Your task to perform on an android device: turn off translation in the chrome app Image 0: 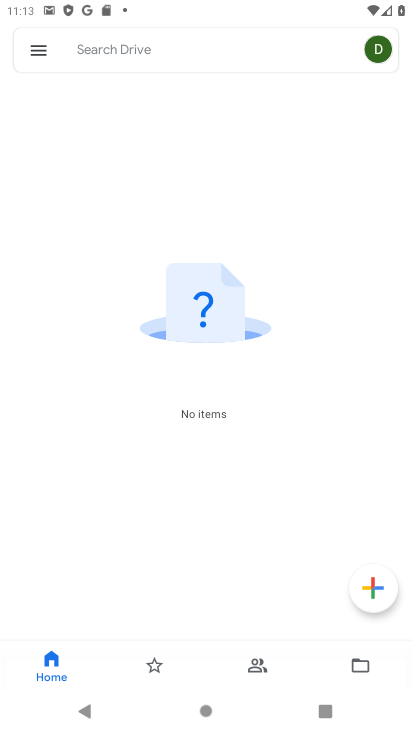
Step 0: drag from (172, 551) to (187, 204)
Your task to perform on an android device: turn off translation in the chrome app Image 1: 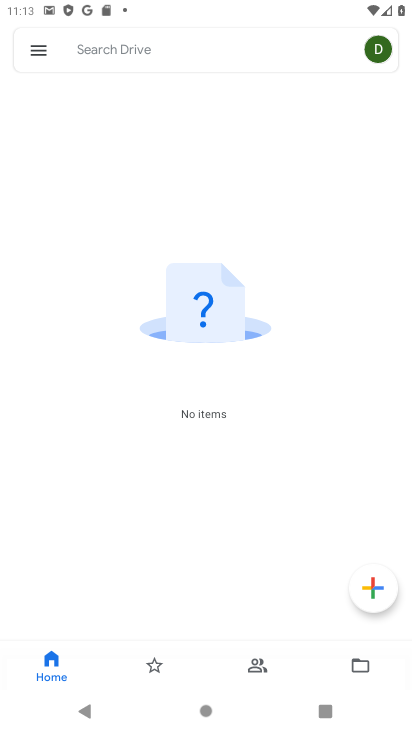
Step 1: press home button
Your task to perform on an android device: turn off translation in the chrome app Image 2: 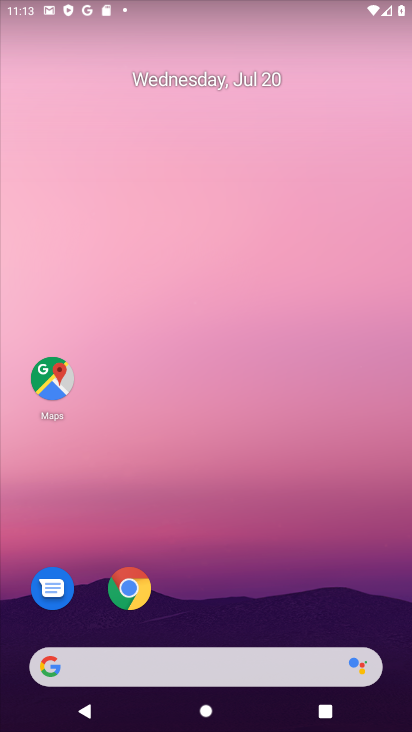
Step 2: drag from (186, 557) to (201, 135)
Your task to perform on an android device: turn off translation in the chrome app Image 3: 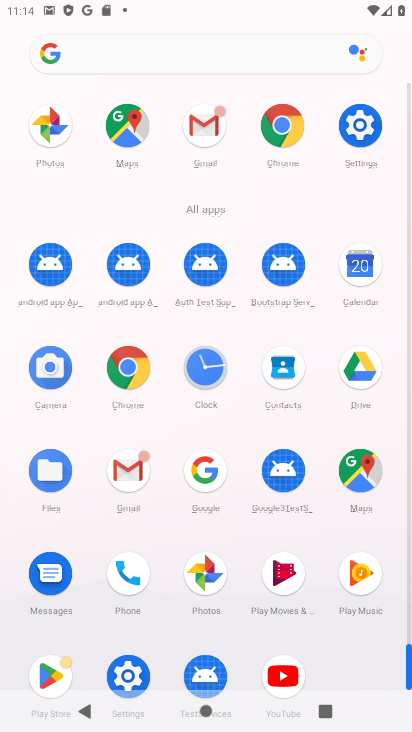
Step 3: click (113, 363)
Your task to perform on an android device: turn off translation in the chrome app Image 4: 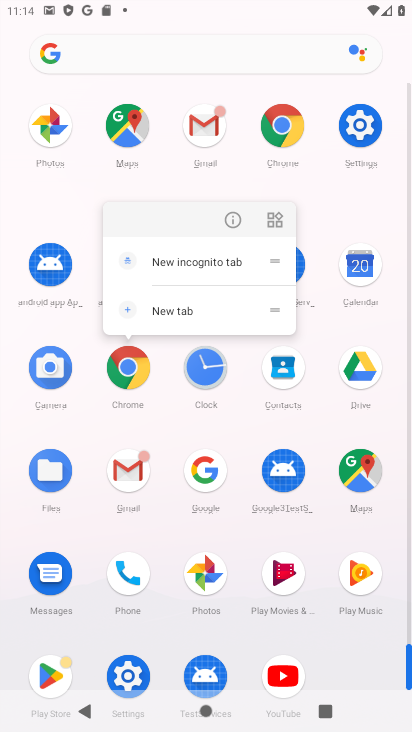
Step 4: click (223, 215)
Your task to perform on an android device: turn off translation in the chrome app Image 5: 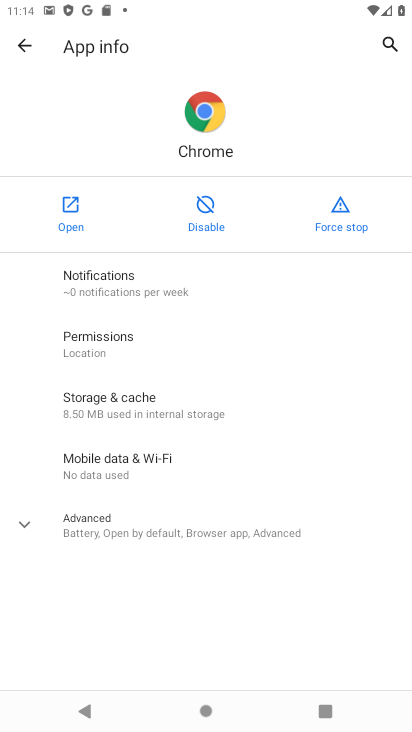
Step 5: click (59, 212)
Your task to perform on an android device: turn off translation in the chrome app Image 6: 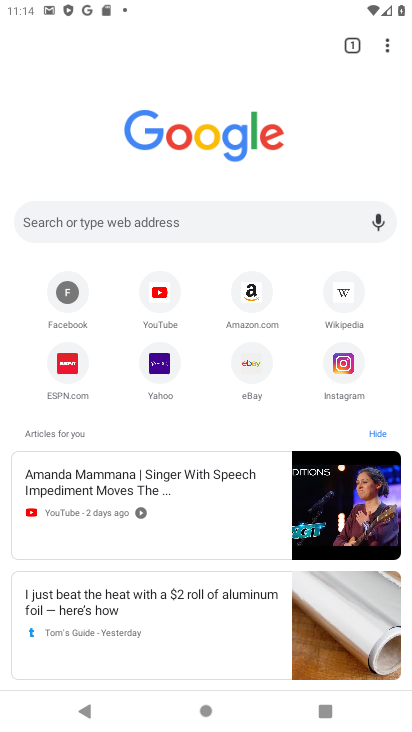
Step 6: drag from (384, 45) to (238, 390)
Your task to perform on an android device: turn off translation in the chrome app Image 7: 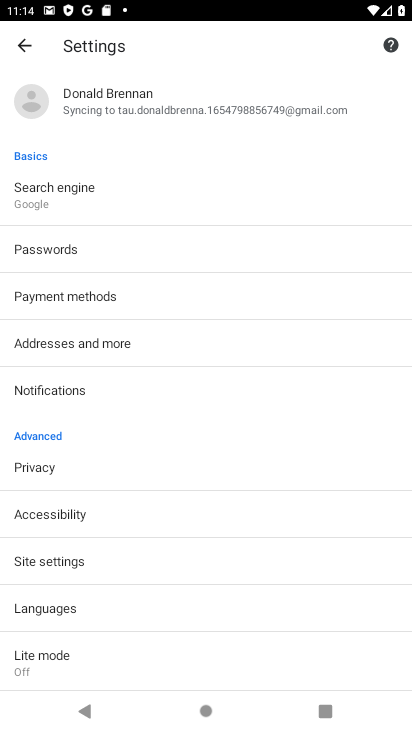
Step 7: drag from (59, 651) to (222, 214)
Your task to perform on an android device: turn off translation in the chrome app Image 8: 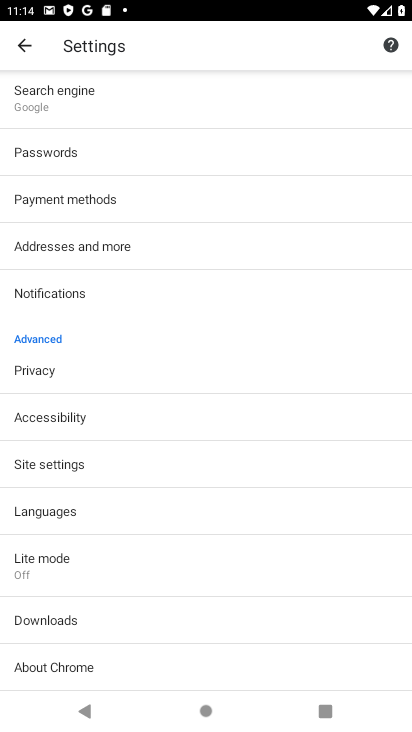
Step 8: drag from (59, 459) to (225, 207)
Your task to perform on an android device: turn off translation in the chrome app Image 9: 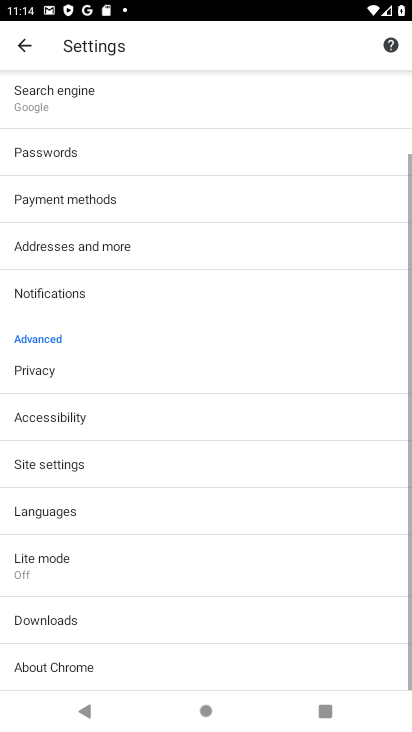
Step 9: click (43, 528)
Your task to perform on an android device: turn off translation in the chrome app Image 10: 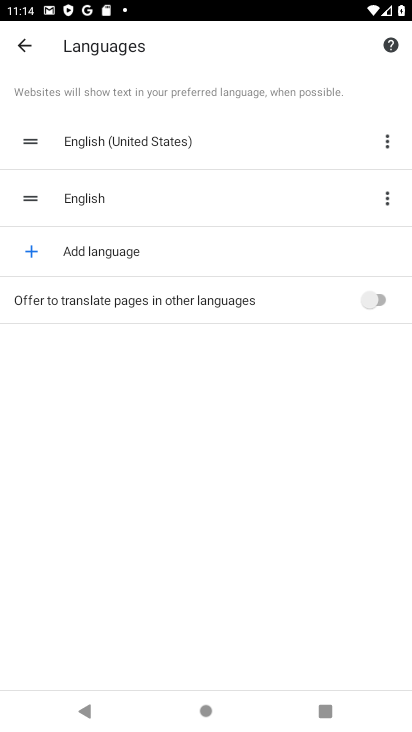
Step 10: task complete